Your task to perform on an android device: Open Reddit.com Image 0: 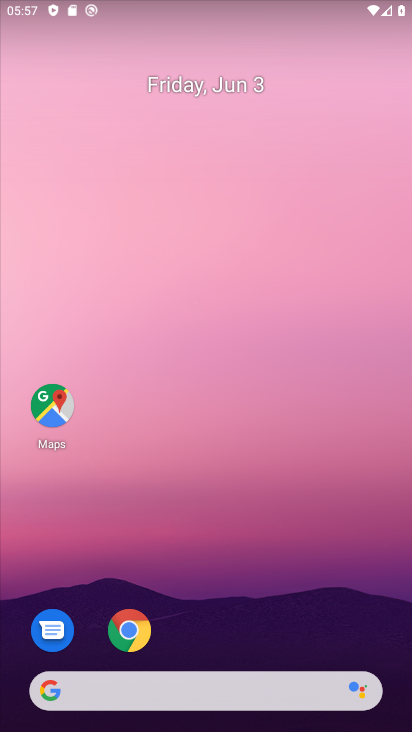
Step 0: click (272, 690)
Your task to perform on an android device: Open Reddit.com Image 1: 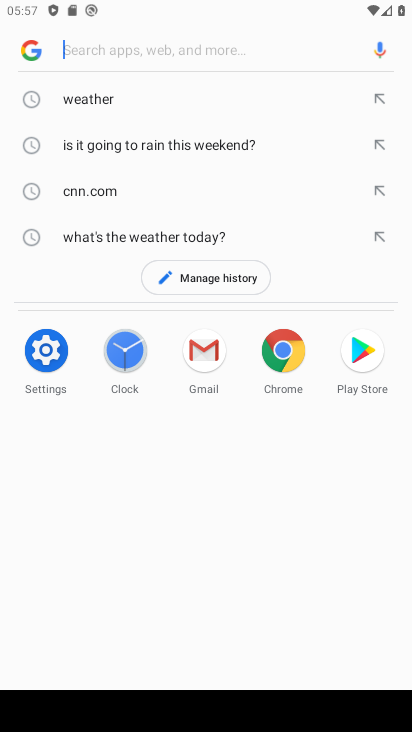
Step 1: type "reddit"
Your task to perform on an android device: Open Reddit.com Image 2: 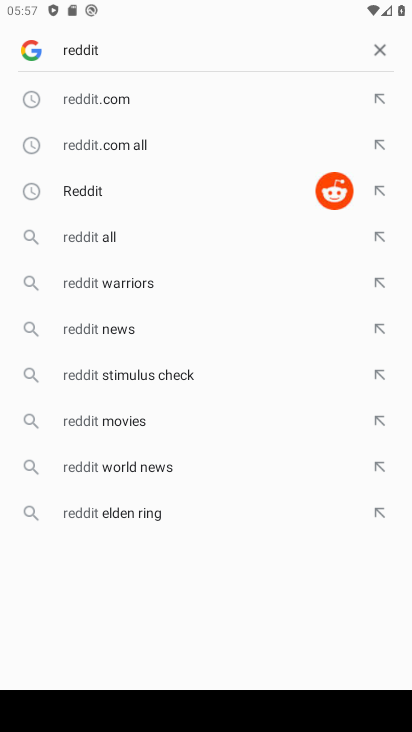
Step 2: click (327, 94)
Your task to perform on an android device: Open Reddit.com Image 3: 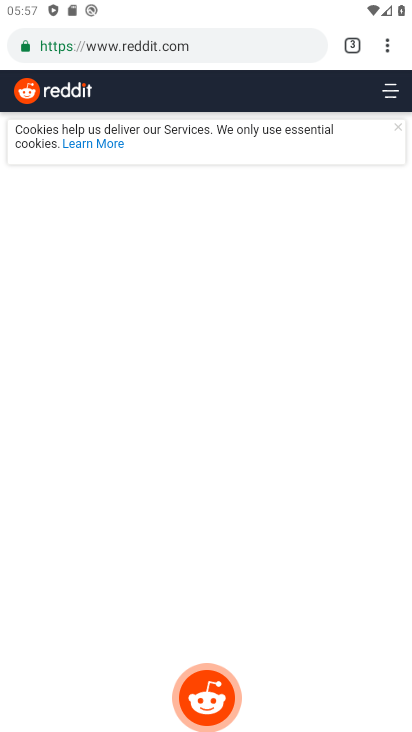
Step 3: task complete